Your task to perform on an android device: open app "Adobe Acrobat Reader" Image 0: 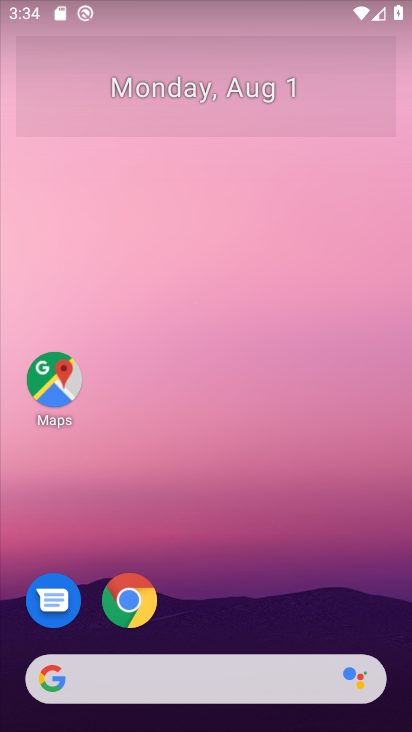
Step 0: drag from (240, 629) to (294, 7)
Your task to perform on an android device: open app "Adobe Acrobat Reader" Image 1: 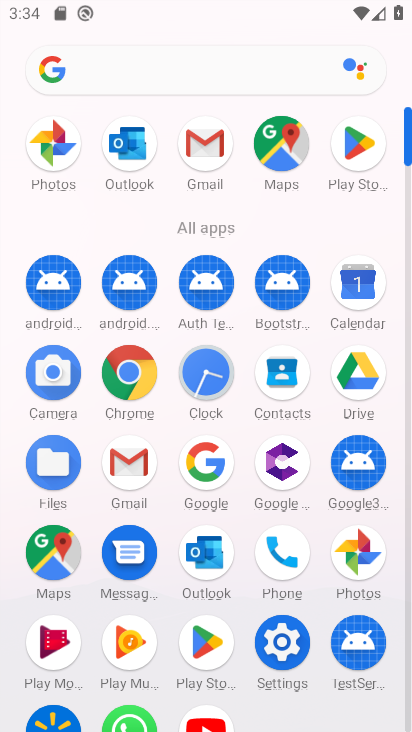
Step 1: click (353, 133)
Your task to perform on an android device: open app "Adobe Acrobat Reader" Image 2: 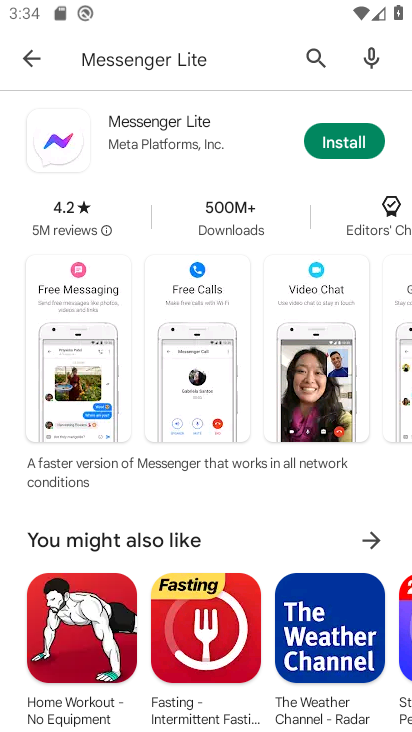
Step 2: click (195, 63)
Your task to perform on an android device: open app "Adobe Acrobat Reader" Image 3: 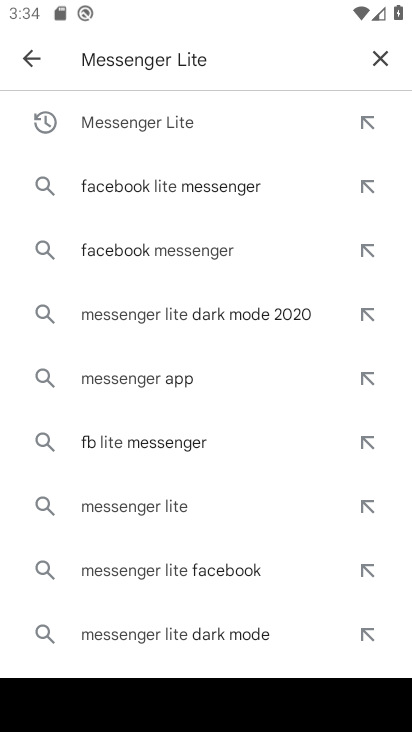
Step 3: click (380, 59)
Your task to perform on an android device: open app "Adobe Acrobat Reader" Image 4: 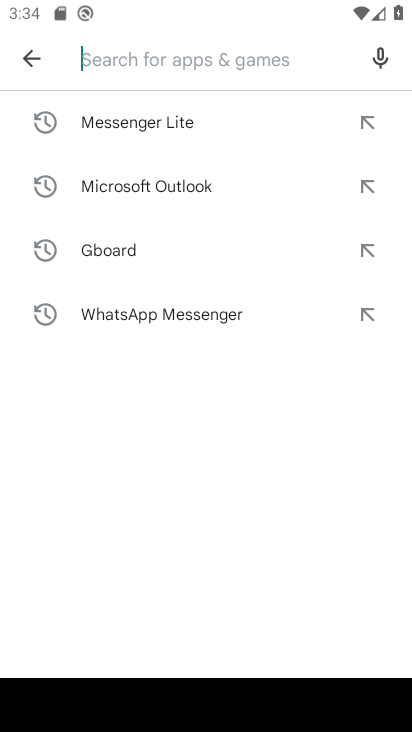
Step 4: type "Adobe Acrobat Reader"
Your task to perform on an android device: open app "Adobe Acrobat Reader" Image 5: 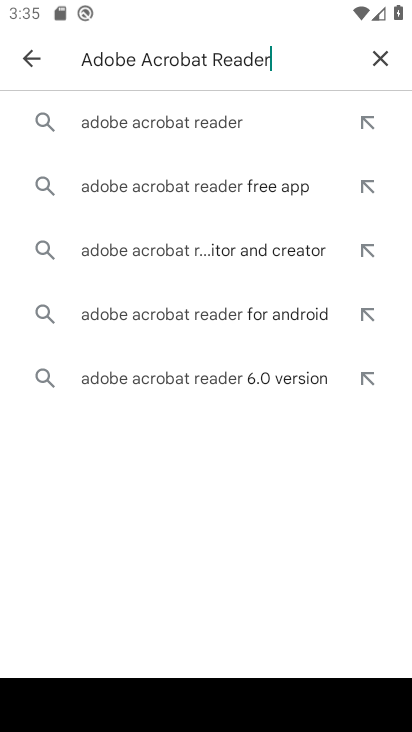
Step 5: press enter
Your task to perform on an android device: open app "Adobe Acrobat Reader" Image 6: 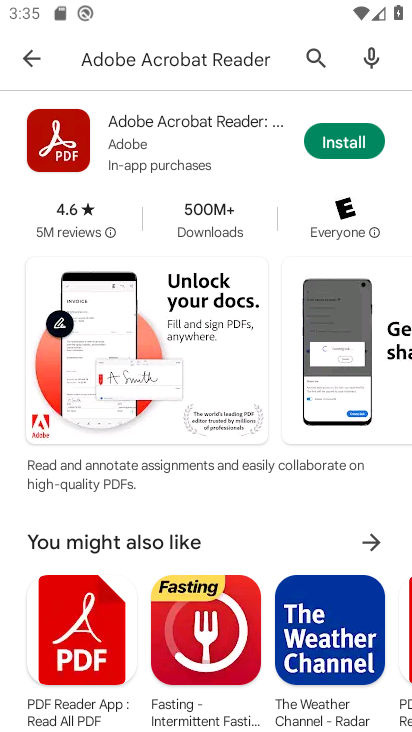
Step 6: task complete